Your task to perform on an android device: Open CNN.com Image 0: 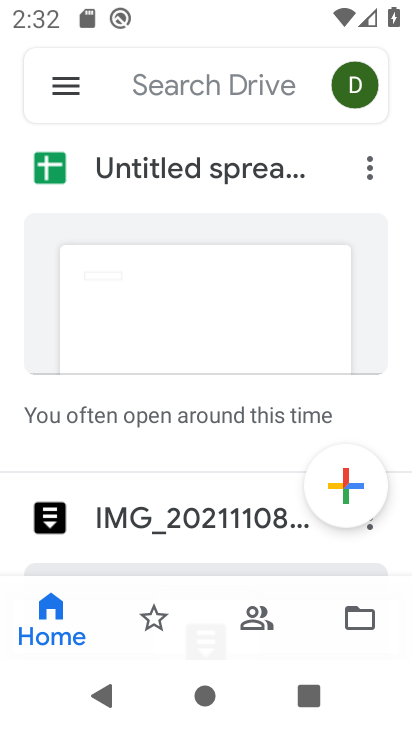
Step 0: press home button
Your task to perform on an android device: Open CNN.com Image 1: 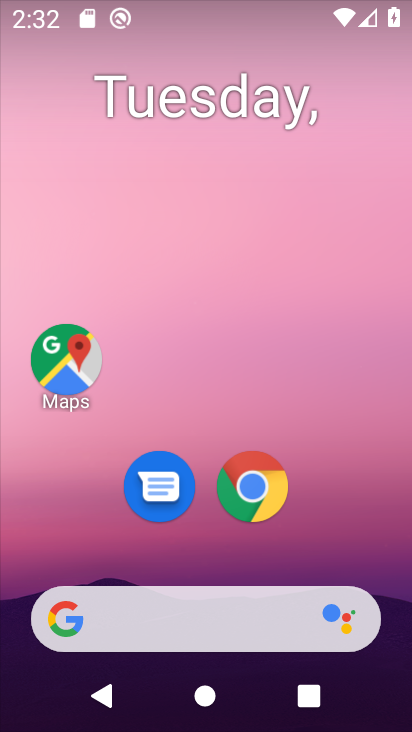
Step 1: click (247, 479)
Your task to perform on an android device: Open CNN.com Image 2: 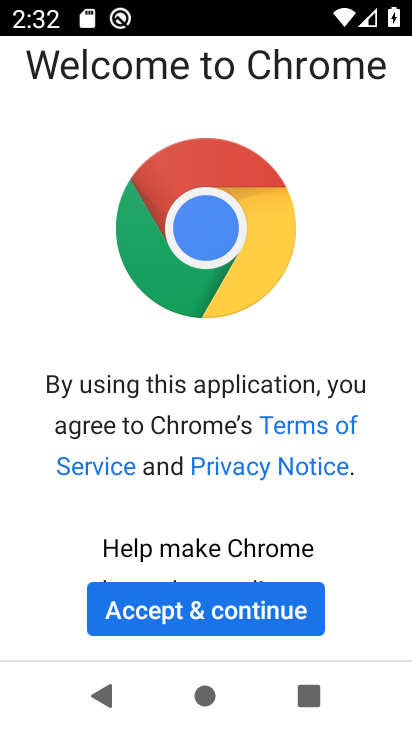
Step 2: click (193, 602)
Your task to perform on an android device: Open CNN.com Image 3: 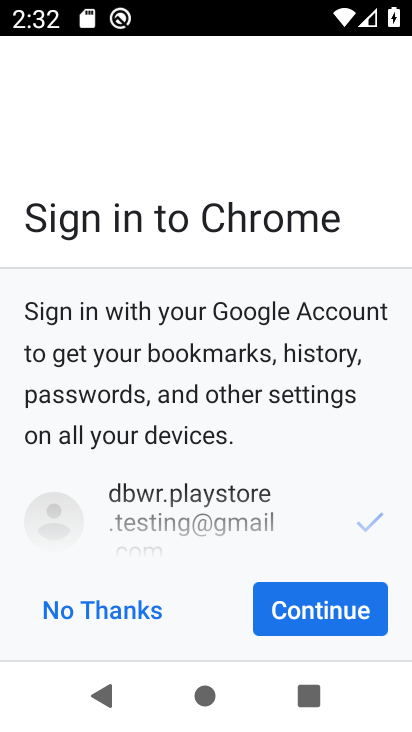
Step 3: click (330, 607)
Your task to perform on an android device: Open CNN.com Image 4: 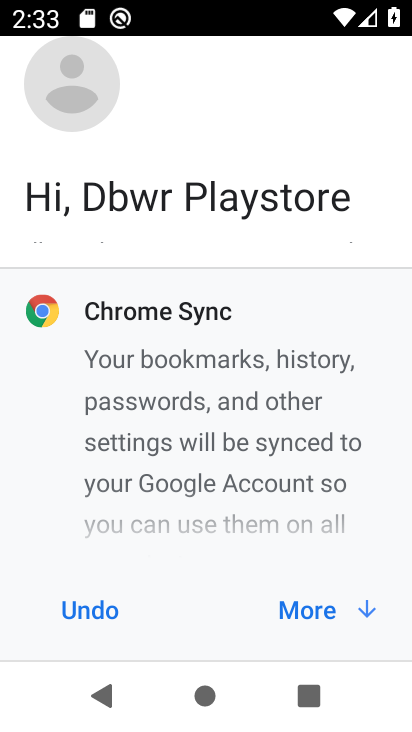
Step 4: click (327, 604)
Your task to perform on an android device: Open CNN.com Image 5: 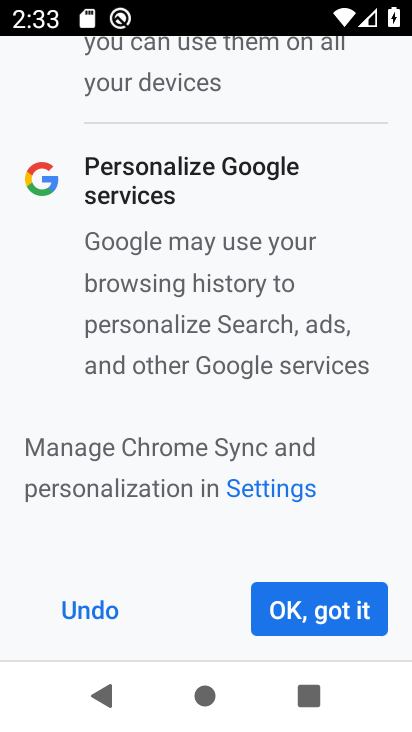
Step 5: click (332, 605)
Your task to perform on an android device: Open CNN.com Image 6: 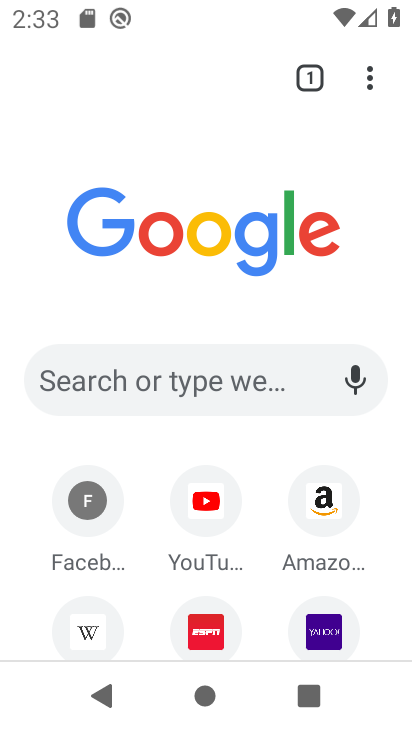
Step 6: drag from (154, 592) to (178, 78)
Your task to perform on an android device: Open CNN.com Image 7: 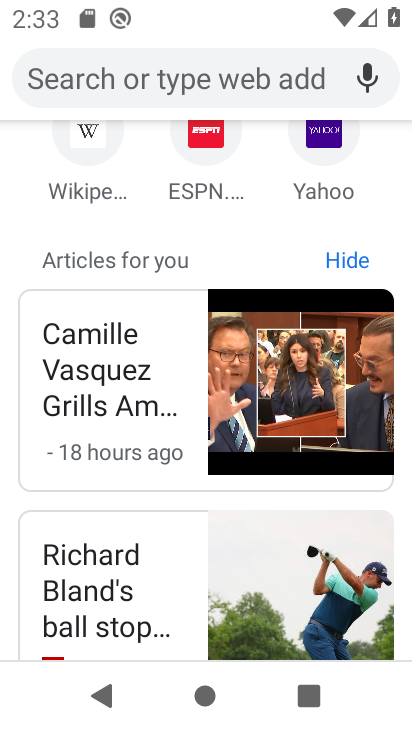
Step 7: drag from (146, 215) to (176, 688)
Your task to perform on an android device: Open CNN.com Image 8: 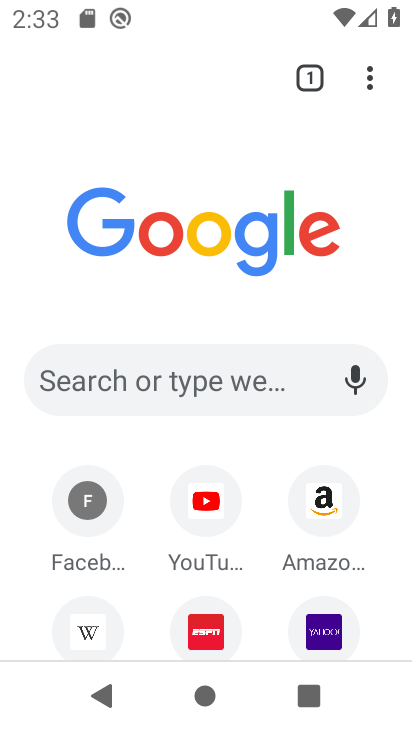
Step 8: click (129, 365)
Your task to perform on an android device: Open CNN.com Image 9: 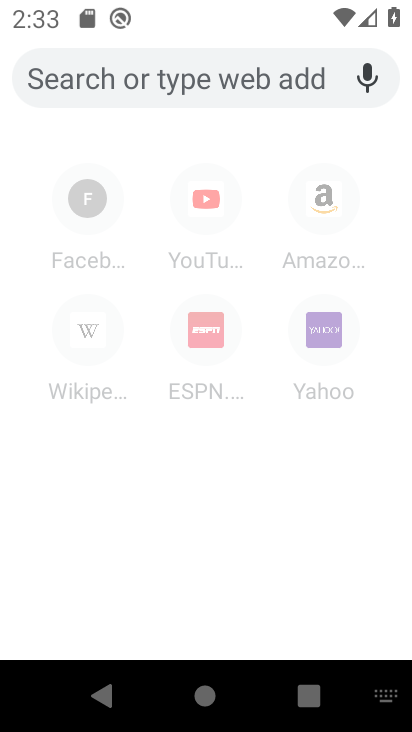
Step 9: type "cnn.com"
Your task to perform on an android device: Open CNN.com Image 10: 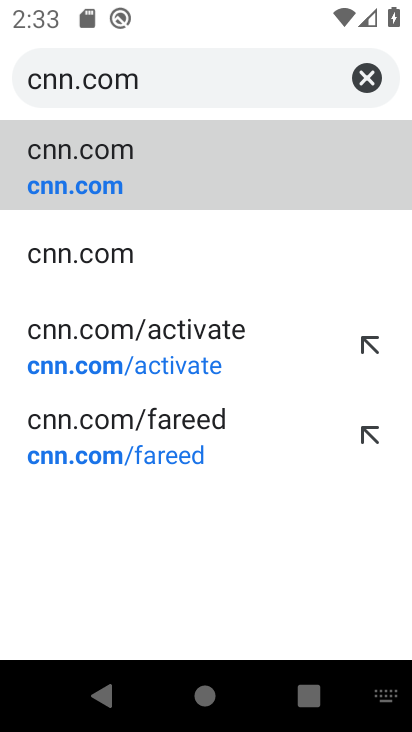
Step 10: click (138, 165)
Your task to perform on an android device: Open CNN.com Image 11: 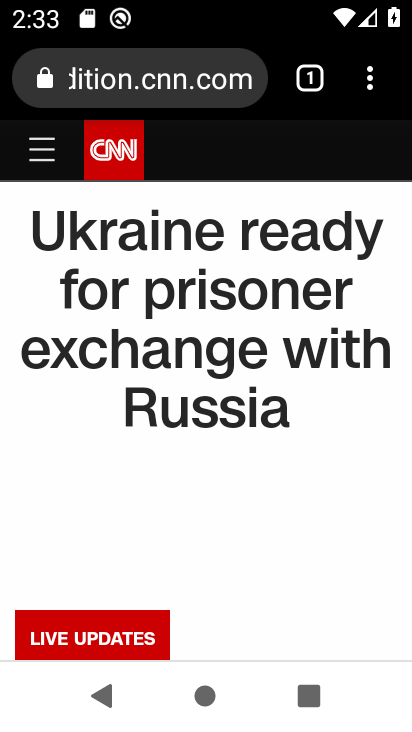
Step 11: drag from (227, 590) to (226, 163)
Your task to perform on an android device: Open CNN.com Image 12: 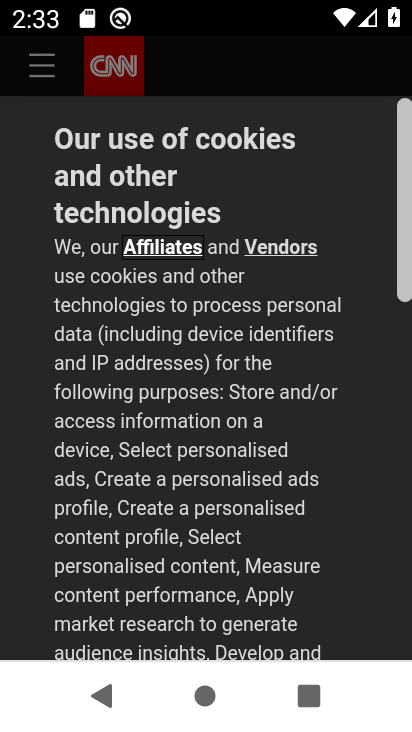
Step 12: drag from (217, 623) to (212, 108)
Your task to perform on an android device: Open CNN.com Image 13: 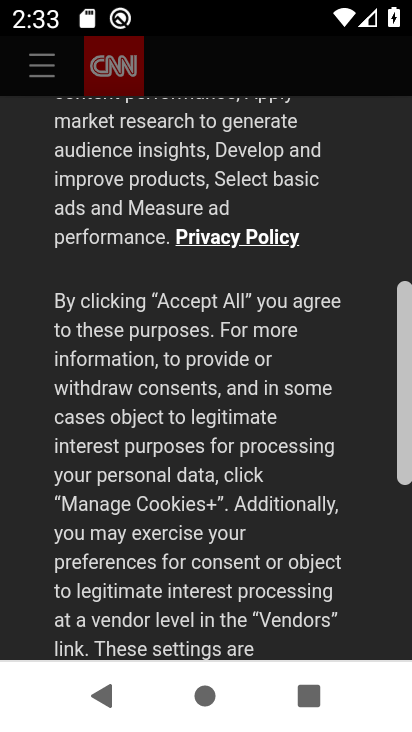
Step 13: drag from (196, 607) to (206, 133)
Your task to perform on an android device: Open CNN.com Image 14: 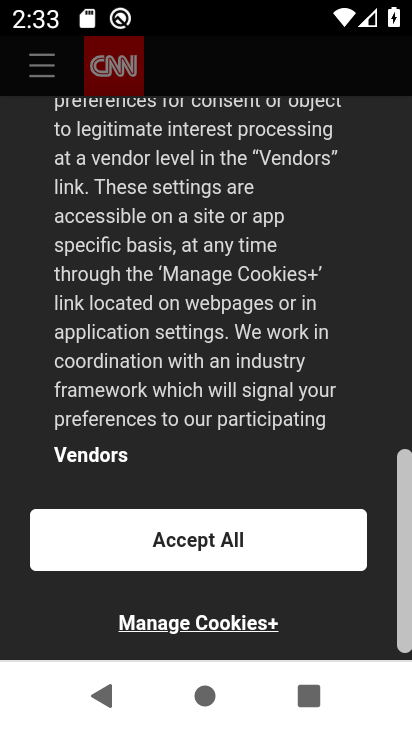
Step 14: click (210, 540)
Your task to perform on an android device: Open CNN.com Image 15: 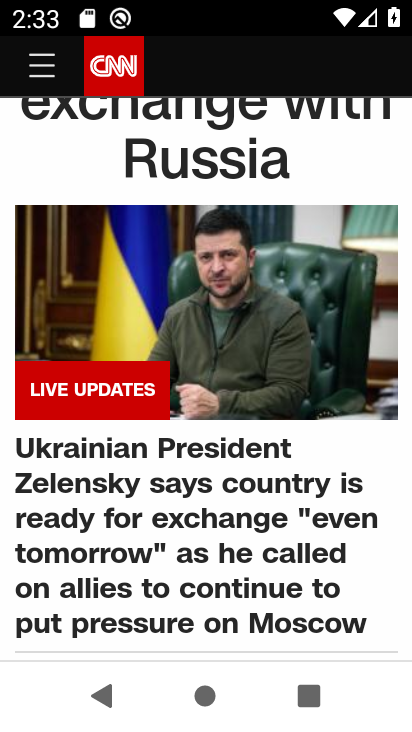
Step 15: task complete